Your task to perform on an android device: Open calendar and show me the third week of next month Image 0: 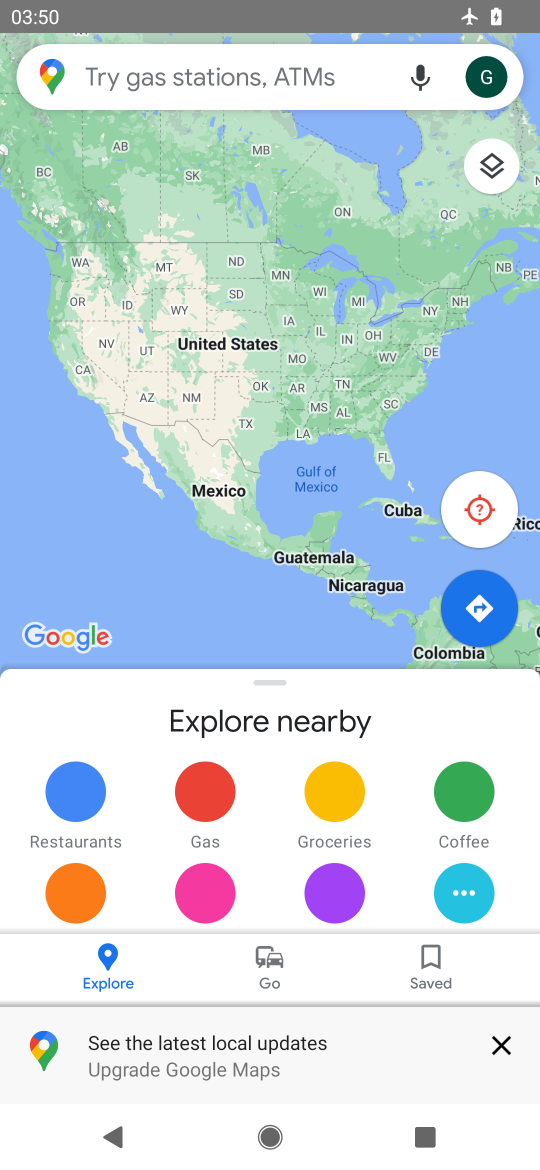
Step 0: press back button
Your task to perform on an android device: Open calendar and show me the third week of next month Image 1: 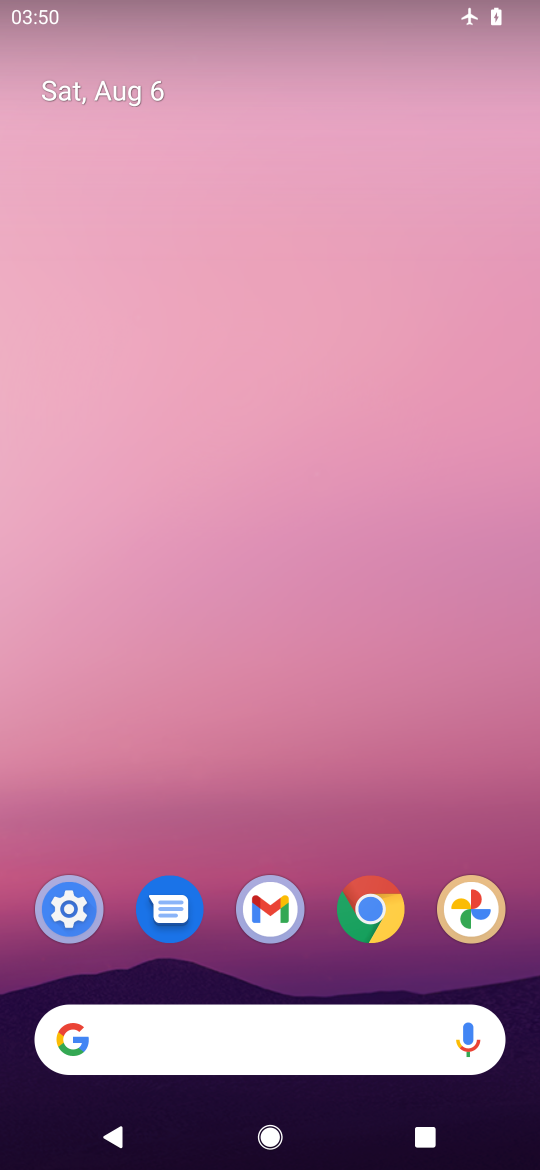
Step 1: drag from (172, 985) to (333, 108)
Your task to perform on an android device: Open calendar and show me the third week of next month Image 2: 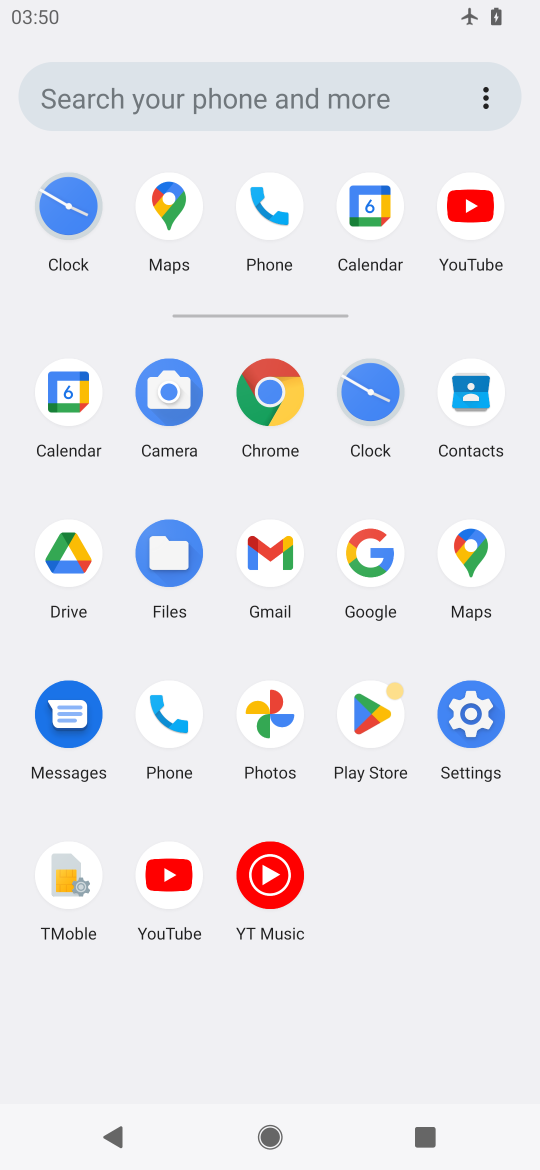
Step 2: click (77, 434)
Your task to perform on an android device: Open calendar and show me the third week of next month Image 3: 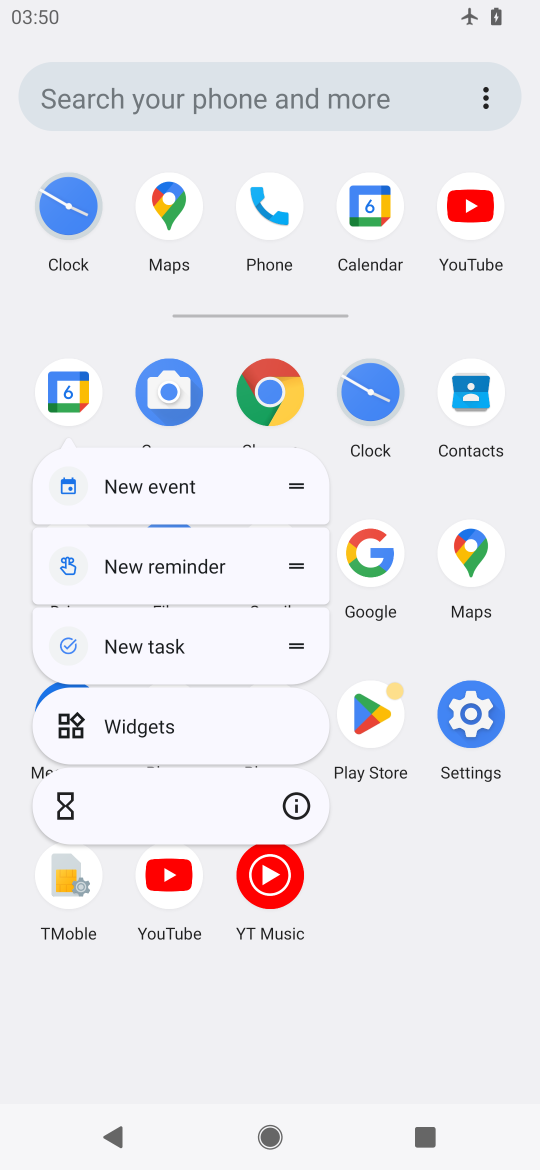
Step 3: click (91, 386)
Your task to perform on an android device: Open calendar and show me the third week of next month Image 4: 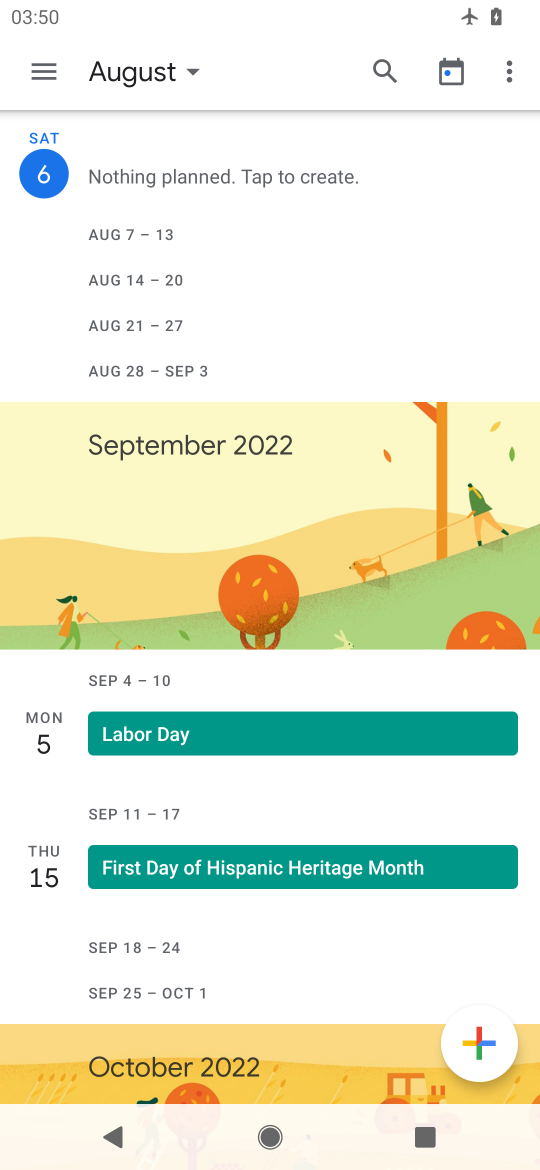
Step 4: click (184, 44)
Your task to perform on an android device: Open calendar and show me the third week of next month Image 5: 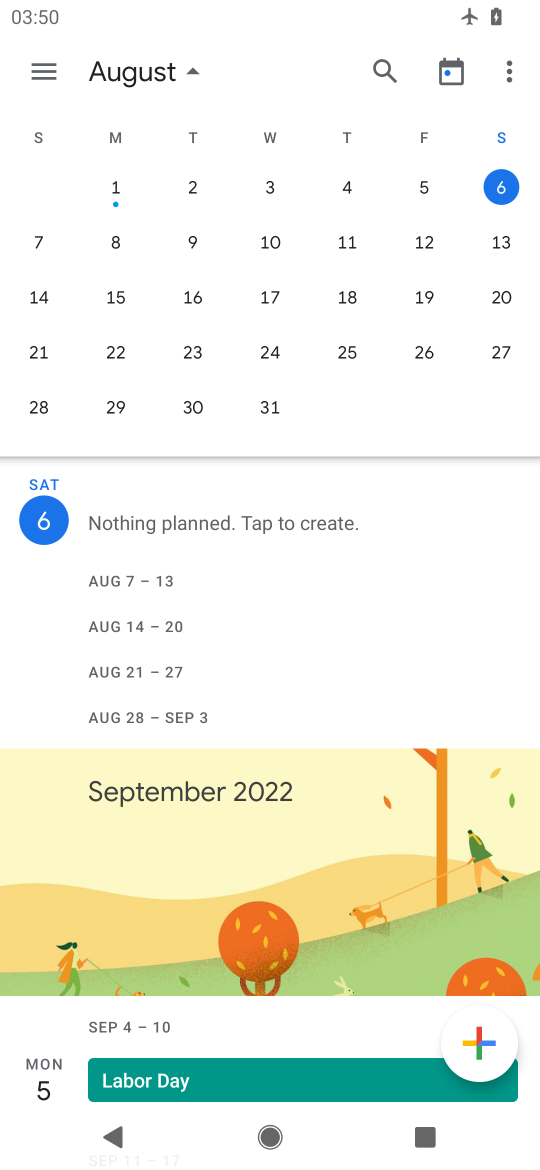
Step 5: drag from (518, 232) to (25, 226)
Your task to perform on an android device: Open calendar and show me the third week of next month Image 6: 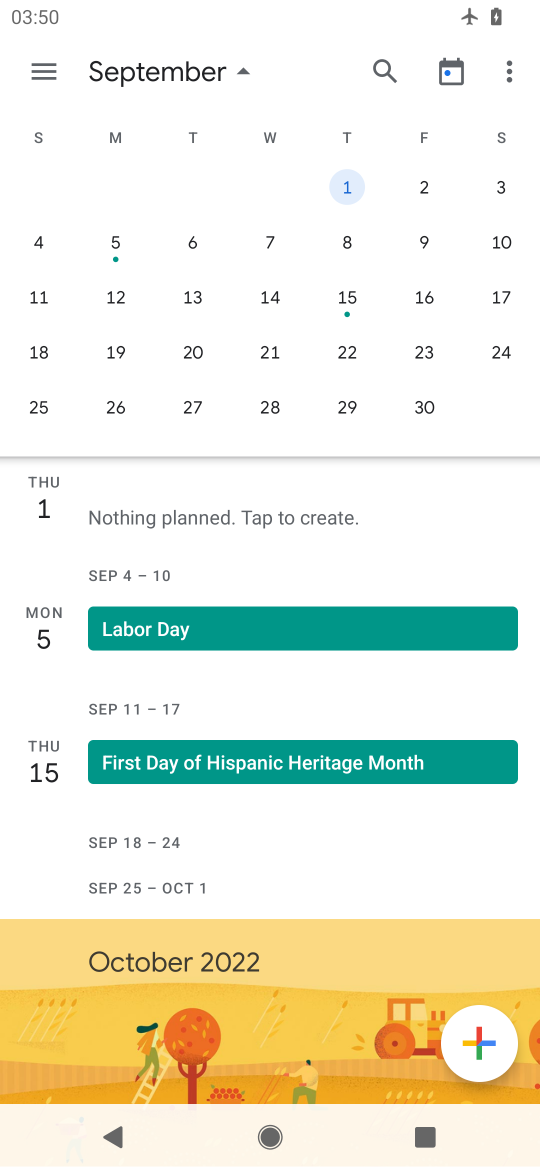
Step 6: click (109, 299)
Your task to perform on an android device: Open calendar and show me the third week of next month Image 7: 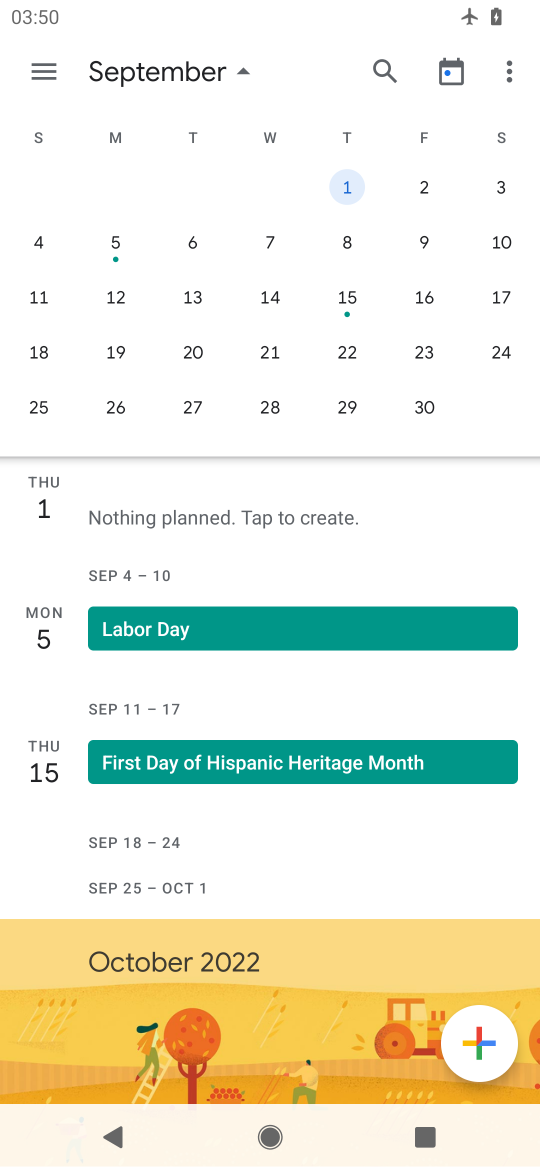
Step 7: click (122, 295)
Your task to perform on an android device: Open calendar and show me the third week of next month Image 8: 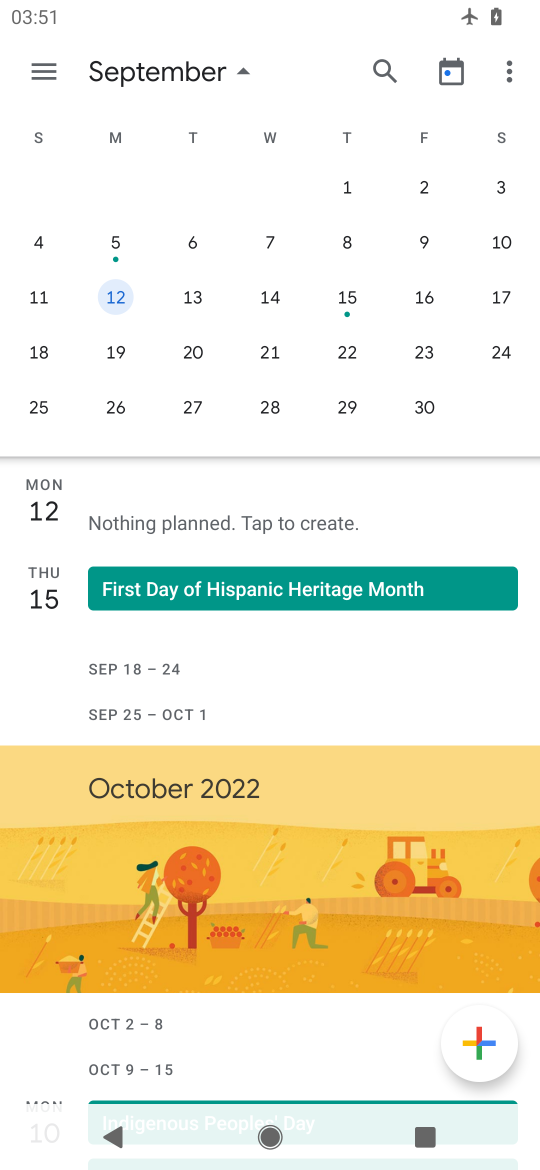
Step 8: task complete